Your task to perform on an android device: Go to settings Image 0: 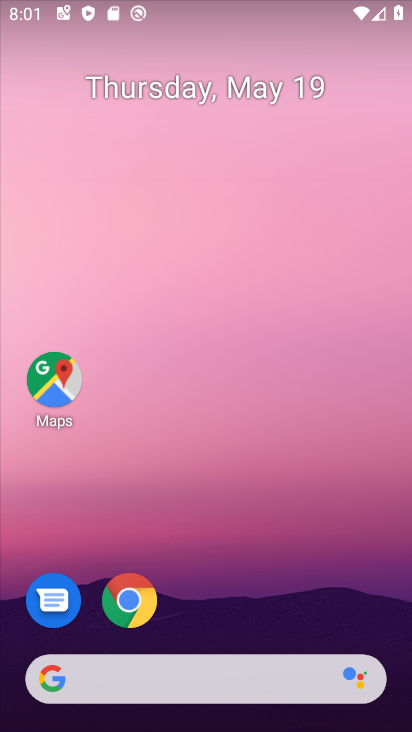
Step 0: drag from (254, 637) to (211, 12)
Your task to perform on an android device: Go to settings Image 1: 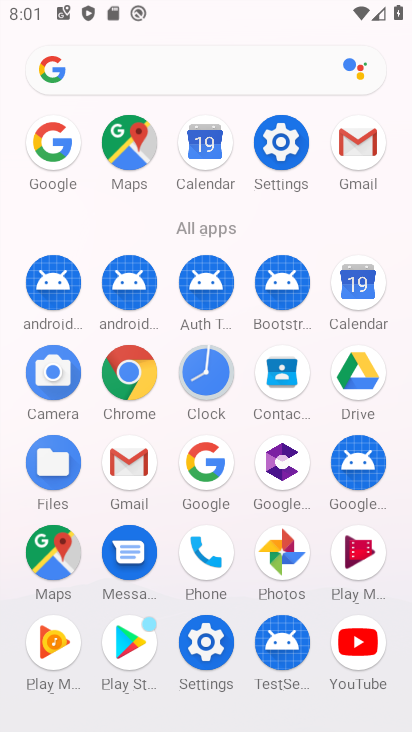
Step 1: click (271, 148)
Your task to perform on an android device: Go to settings Image 2: 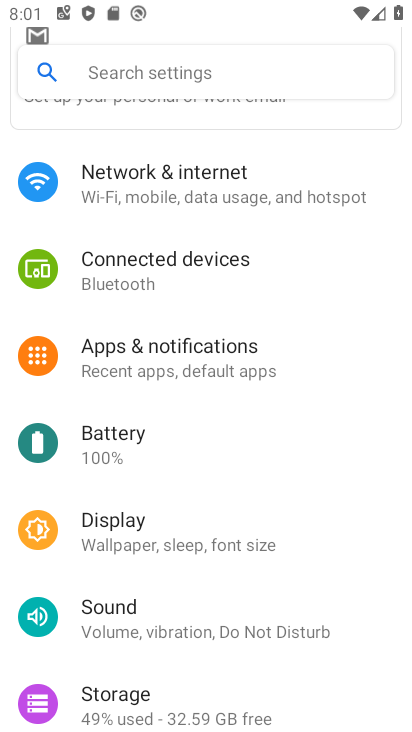
Step 2: task complete